Your task to perform on an android device: see creations saved in the google photos Image 0: 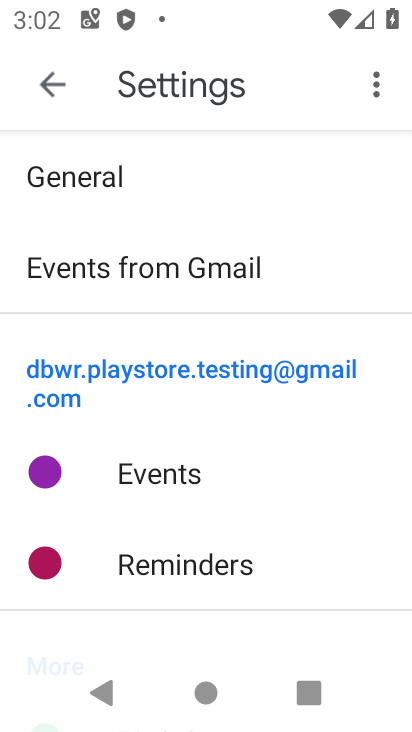
Step 0: press home button
Your task to perform on an android device: see creations saved in the google photos Image 1: 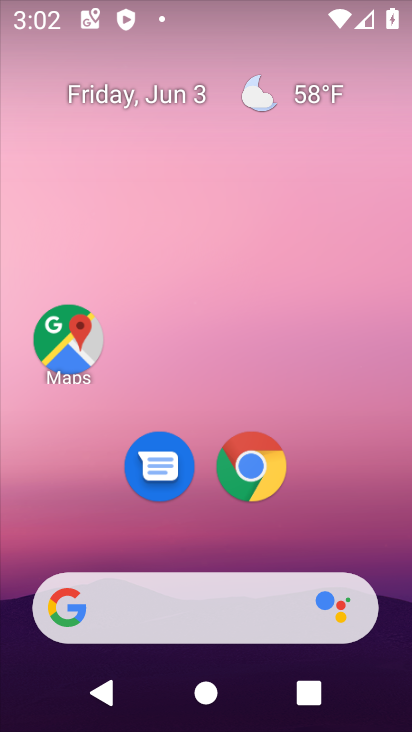
Step 1: drag from (309, 66) to (279, 125)
Your task to perform on an android device: see creations saved in the google photos Image 2: 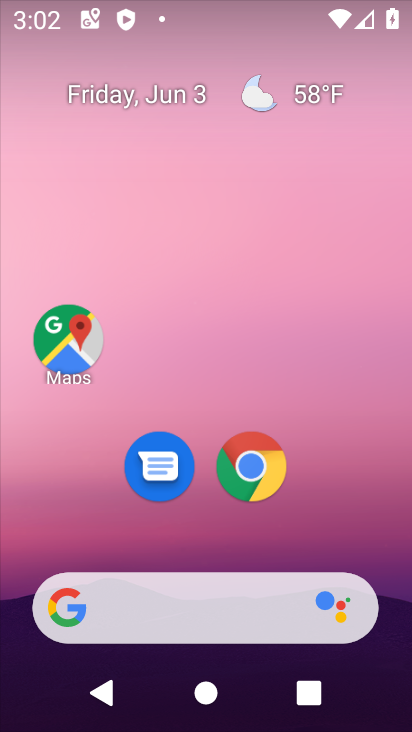
Step 2: drag from (355, 502) to (267, 190)
Your task to perform on an android device: see creations saved in the google photos Image 3: 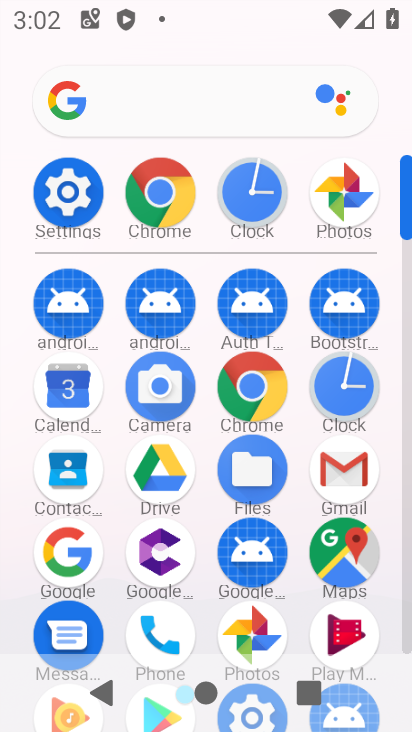
Step 3: click (267, 190)
Your task to perform on an android device: see creations saved in the google photos Image 4: 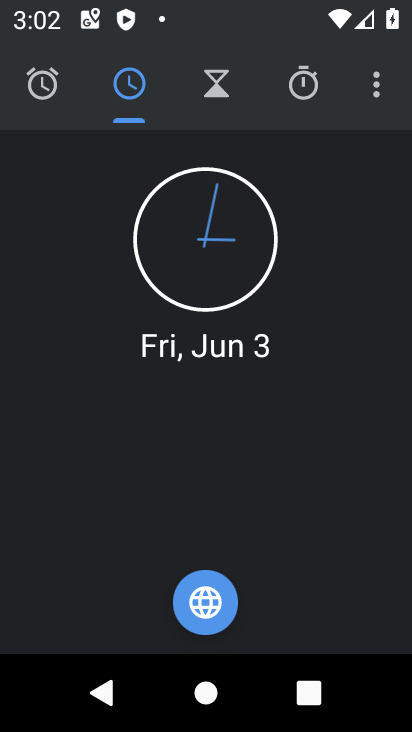
Step 4: click (337, 199)
Your task to perform on an android device: see creations saved in the google photos Image 5: 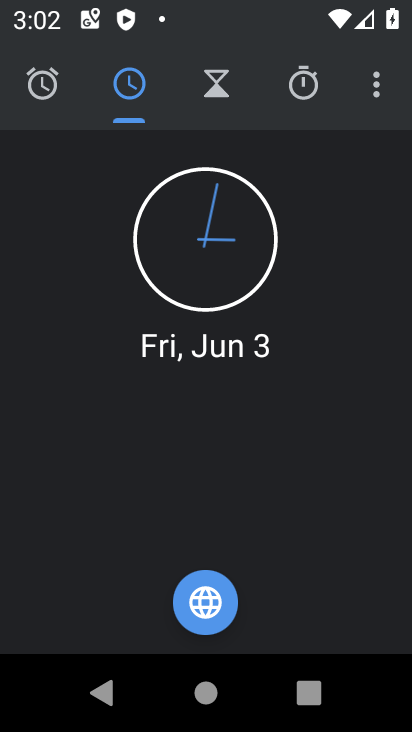
Step 5: press home button
Your task to perform on an android device: see creations saved in the google photos Image 6: 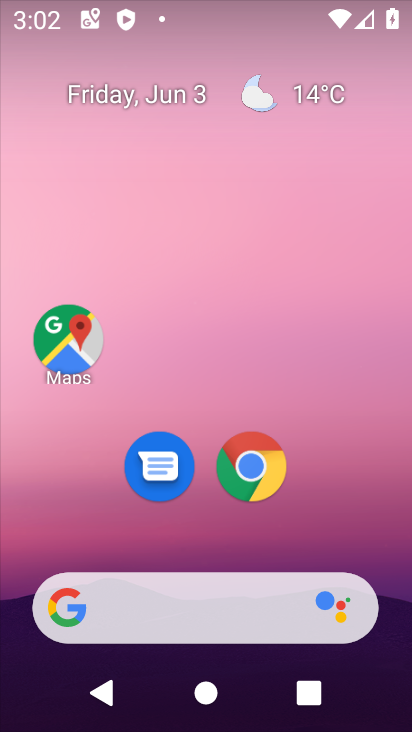
Step 6: drag from (318, 466) to (278, 116)
Your task to perform on an android device: see creations saved in the google photos Image 7: 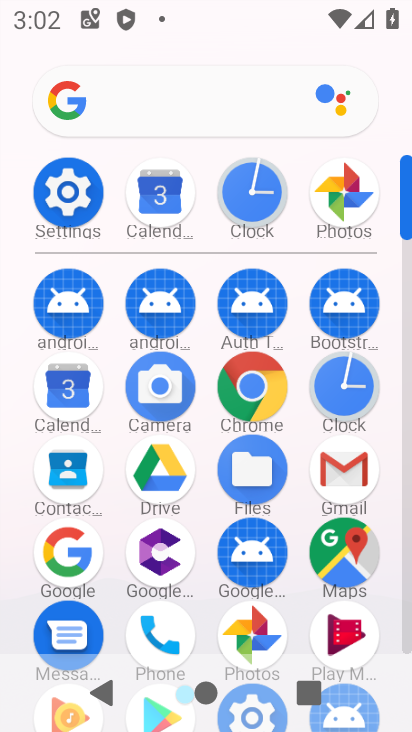
Step 7: click (330, 209)
Your task to perform on an android device: see creations saved in the google photos Image 8: 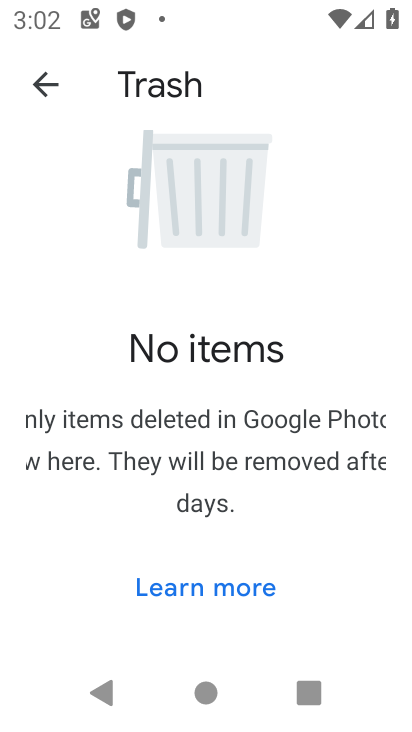
Step 8: click (53, 72)
Your task to perform on an android device: see creations saved in the google photos Image 9: 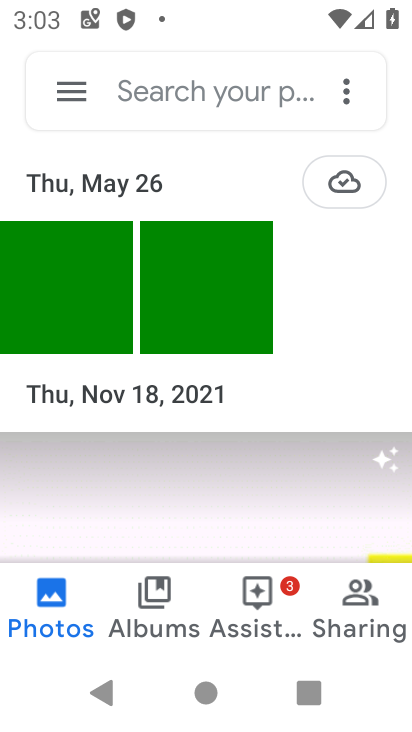
Step 9: task complete